Your task to perform on an android device: Open calendar and show me the second week of next month Image 0: 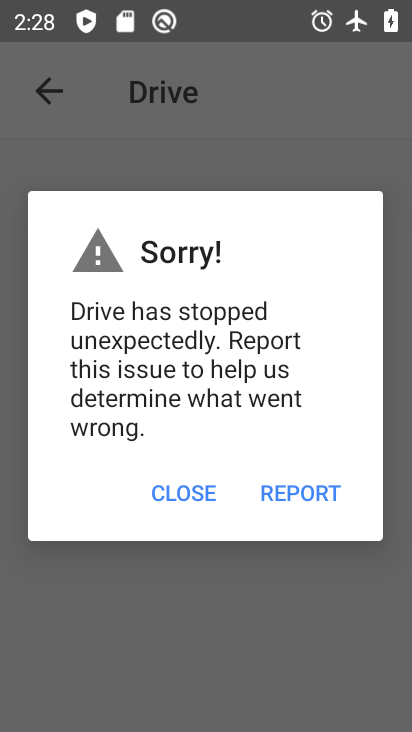
Step 0: press home button
Your task to perform on an android device: Open calendar and show me the second week of next month Image 1: 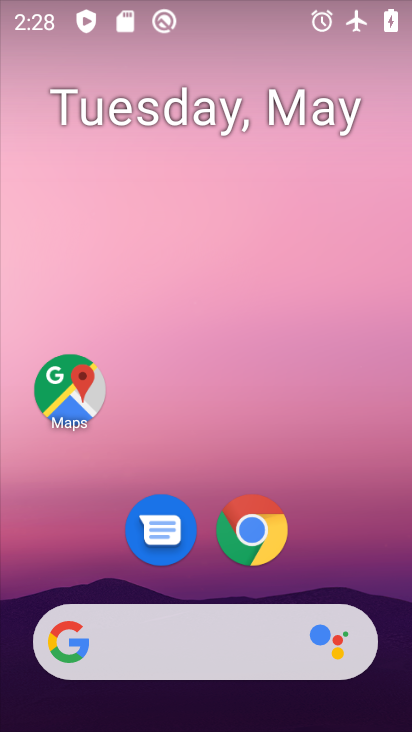
Step 1: drag from (186, 592) to (198, 208)
Your task to perform on an android device: Open calendar and show me the second week of next month Image 2: 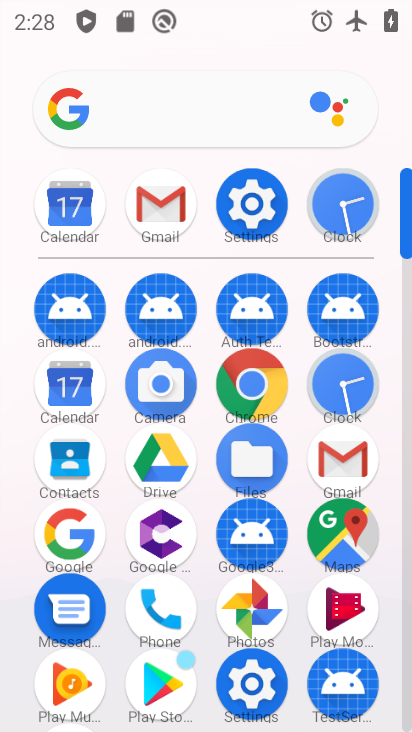
Step 2: click (50, 414)
Your task to perform on an android device: Open calendar and show me the second week of next month Image 3: 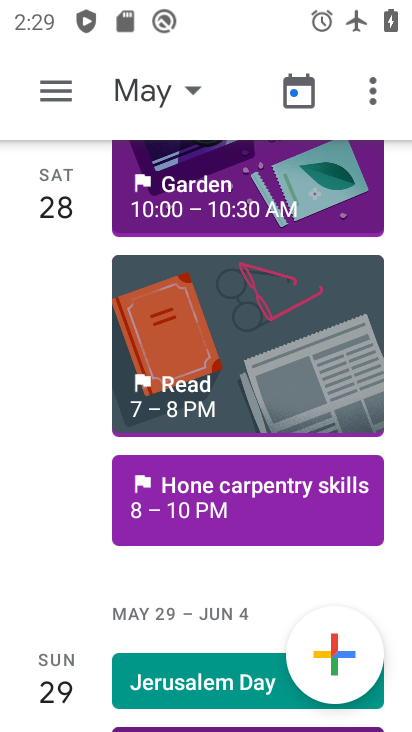
Step 3: click (179, 102)
Your task to perform on an android device: Open calendar and show me the second week of next month Image 4: 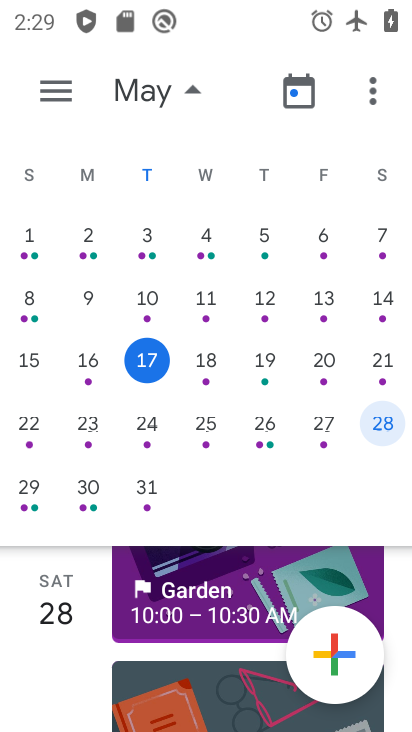
Step 4: drag from (343, 324) to (22, 308)
Your task to perform on an android device: Open calendar and show me the second week of next month Image 5: 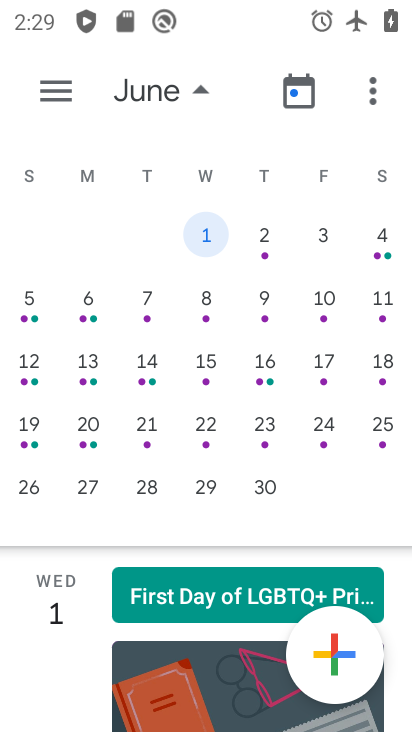
Step 5: click (40, 302)
Your task to perform on an android device: Open calendar and show me the second week of next month Image 6: 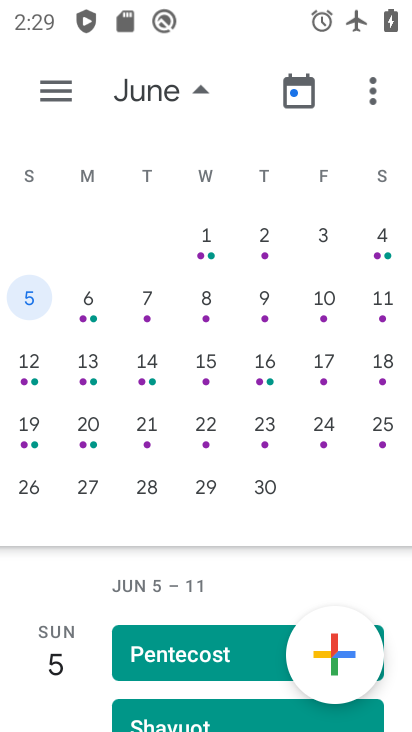
Step 6: task complete